Your task to perform on an android device: search for starred emails in the gmail app Image 0: 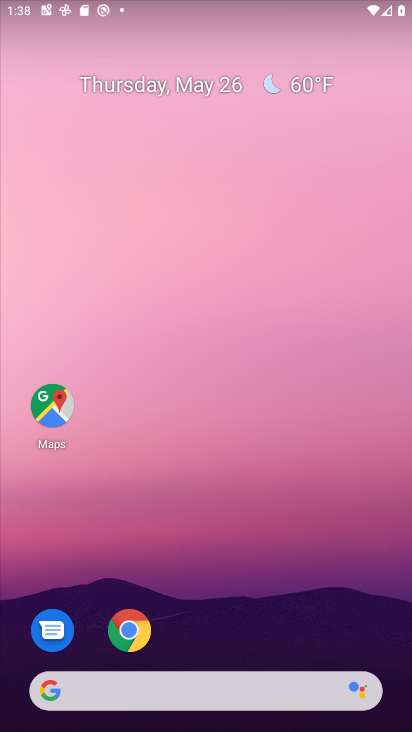
Step 0: drag from (281, 506) to (339, 126)
Your task to perform on an android device: search for starred emails in the gmail app Image 1: 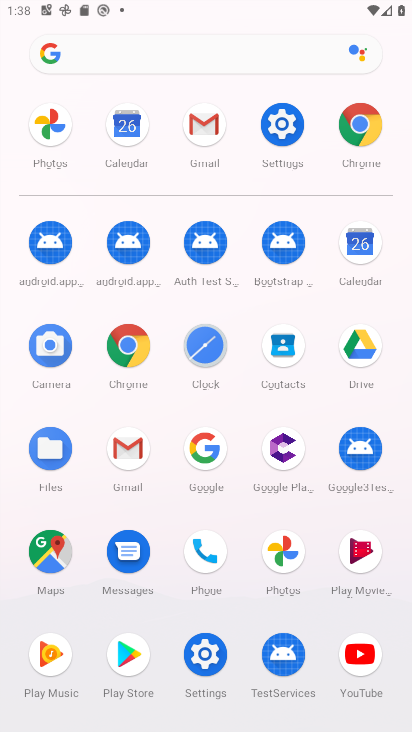
Step 1: click (217, 129)
Your task to perform on an android device: search for starred emails in the gmail app Image 2: 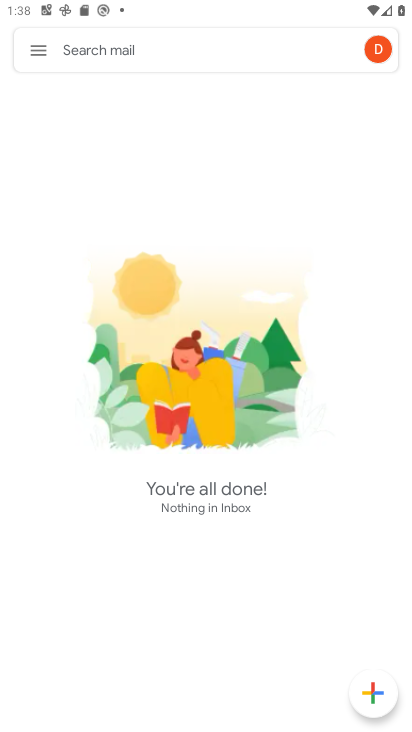
Step 2: click (34, 57)
Your task to perform on an android device: search for starred emails in the gmail app Image 3: 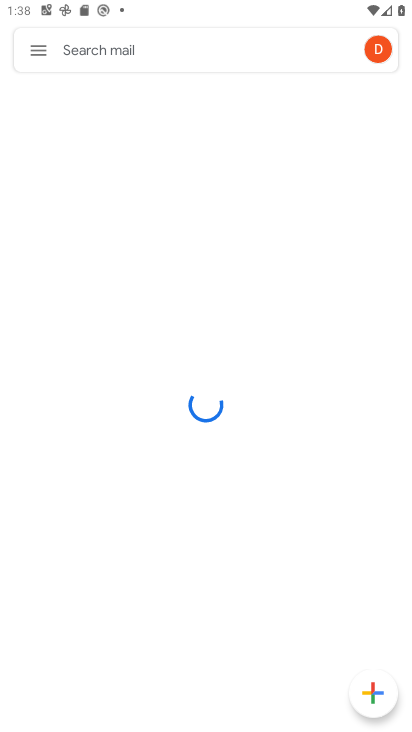
Step 3: click (34, 56)
Your task to perform on an android device: search for starred emails in the gmail app Image 4: 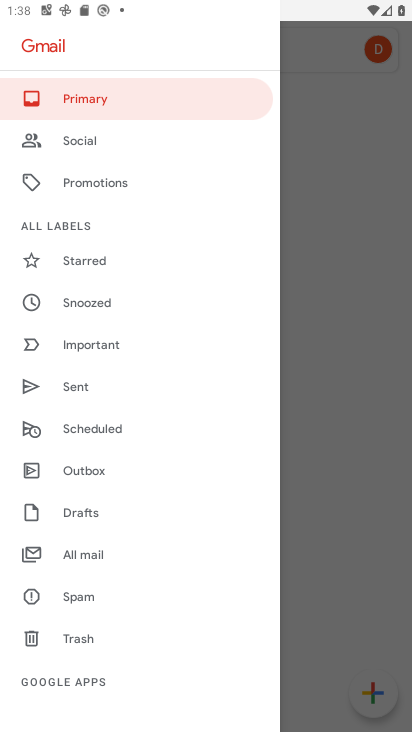
Step 4: drag from (129, 646) to (206, 226)
Your task to perform on an android device: search for starred emails in the gmail app Image 5: 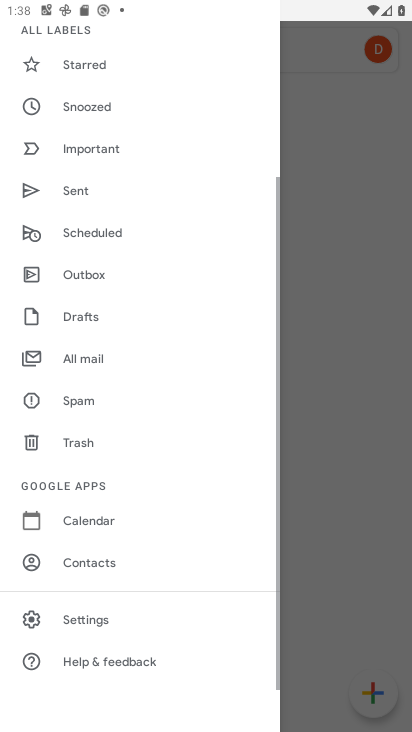
Step 5: drag from (206, 226) to (163, 666)
Your task to perform on an android device: search for starred emails in the gmail app Image 6: 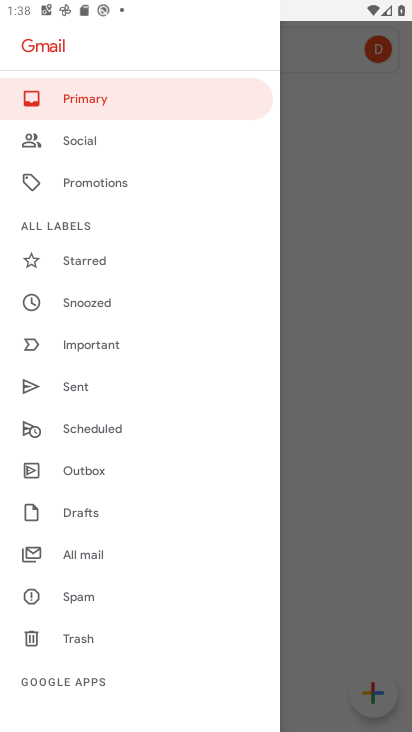
Step 6: click (108, 262)
Your task to perform on an android device: search for starred emails in the gmail app Image 7: 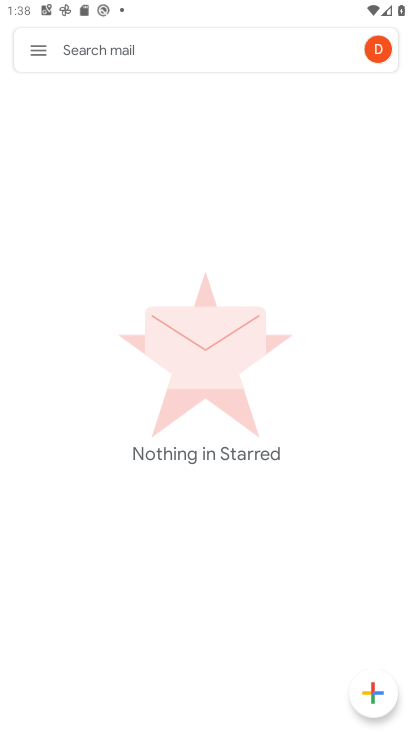
Step 7: task complete